Your task to perform on an android device: change notifications settings Image 0: 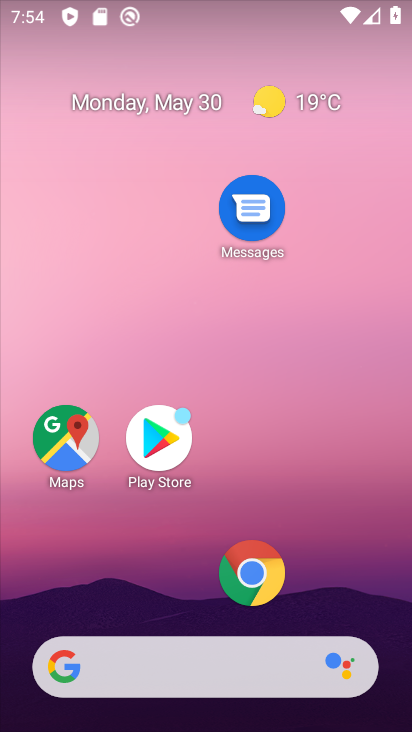
Step 0: drag from (145, 540) to (252, 32)
Your task to perform on an android device: change notifications settings Image 1: 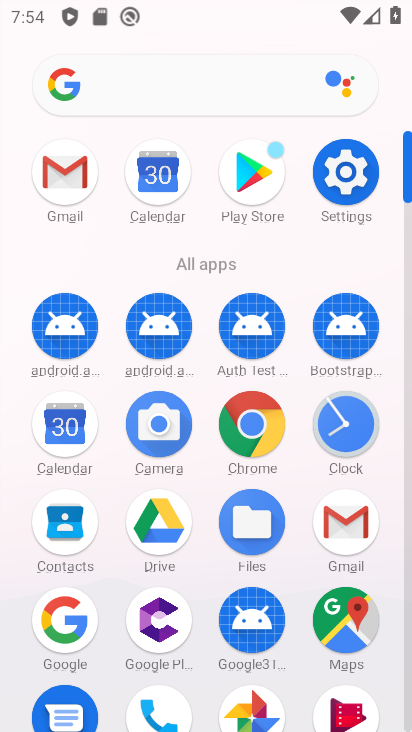
Step 1: click (341, 183)
Your task to perform on an android device: change notifications settings Image 2: 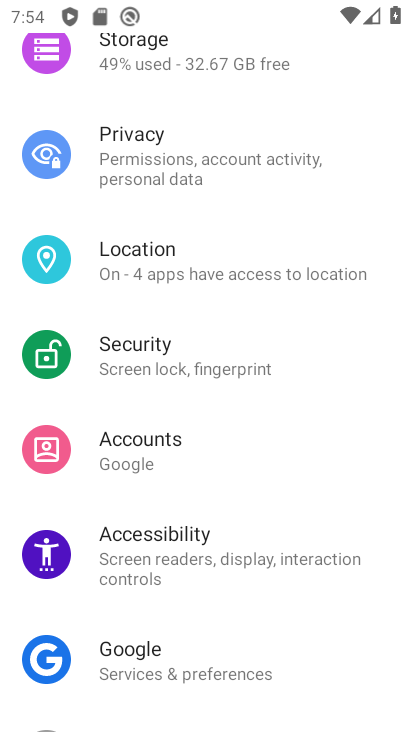
Step 2: drag from (187, 510) to (174, 651)
Your task to perform on an android device: change notifications settings Image 3: 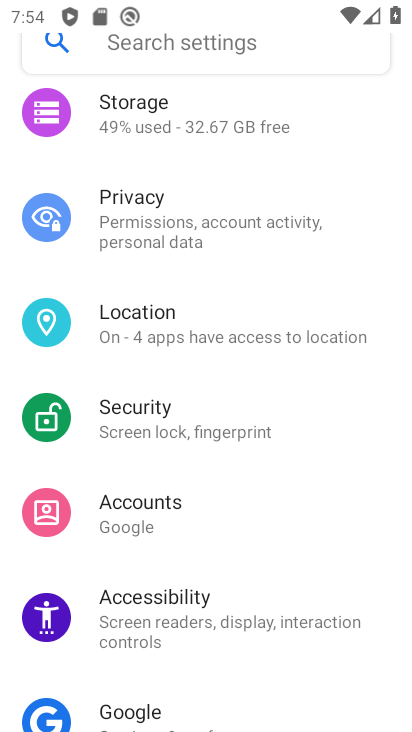
Step 3: drag from (217, 174) to (212, 425)
Your task to perform on an android device: change notifications settings Image 4: 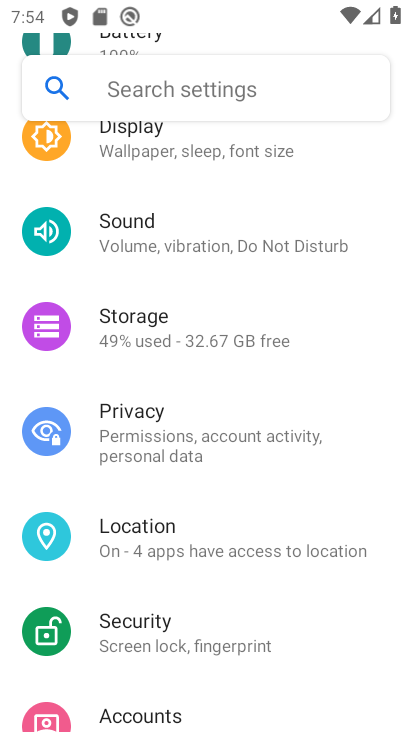
Step 4: drag from (230, 200) to (223, 398)
Your task to perform on an android device: change notifications settings Image 5: 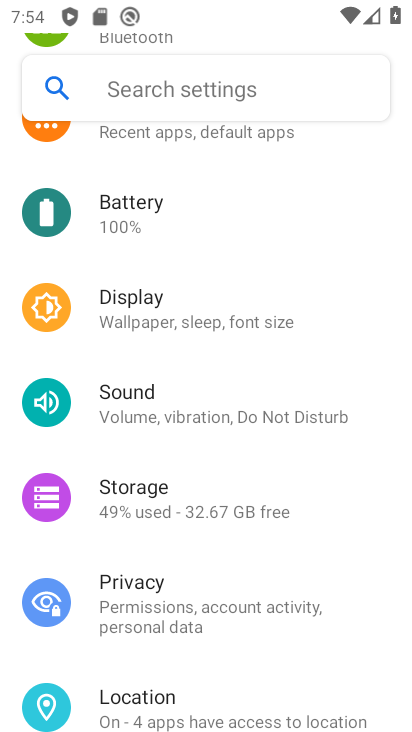
Step 5: drag from (241, 255) to (234, 360)
Your task to perform on an android device: change notifications settings Image 6: 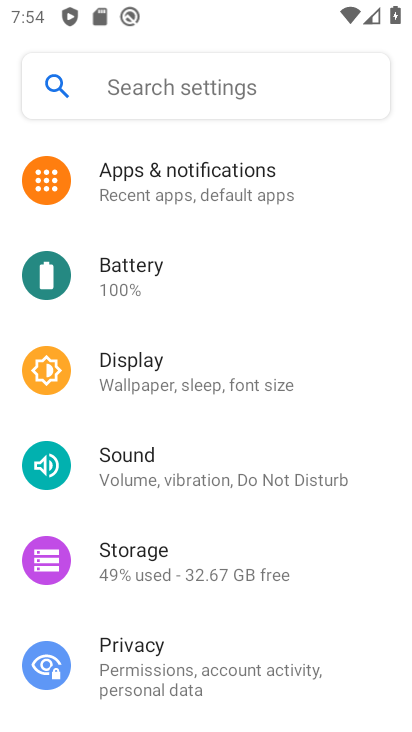
Step 6: click (222, 186)
Your task to perform on an android device: change notifications settings Image 7: 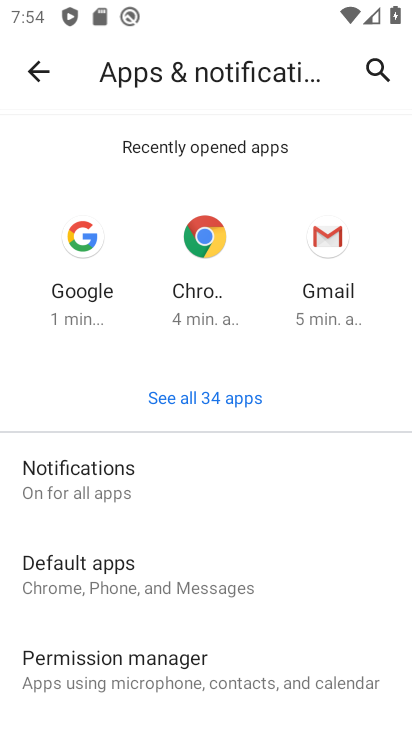
Step 7: click (116, 481)
Your task to perform on an android device: change notifications settings Image 8: 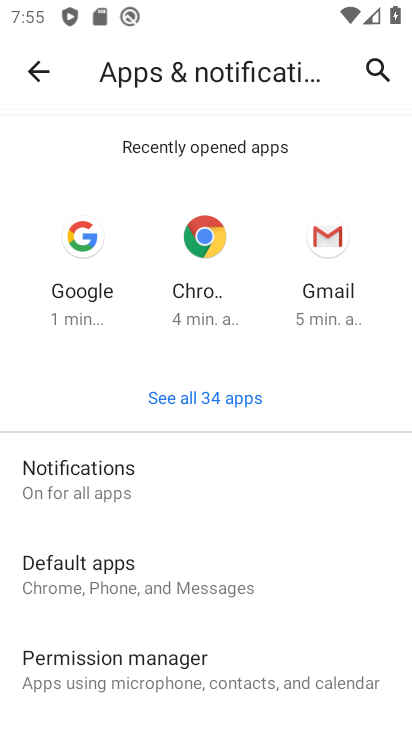
Step 8: click (121, 483)
Your task to perform on an android device: change notifications settings Image 9: 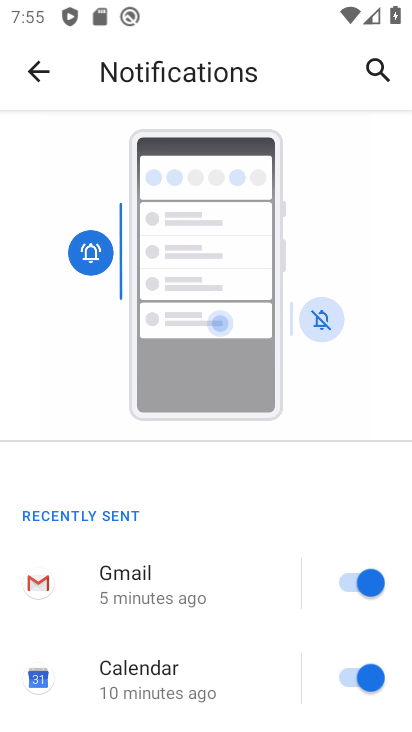
Step 9: drag from (172, 599) to (198, 470)
Your task to perform on an android device: change notifications settings Image 10: 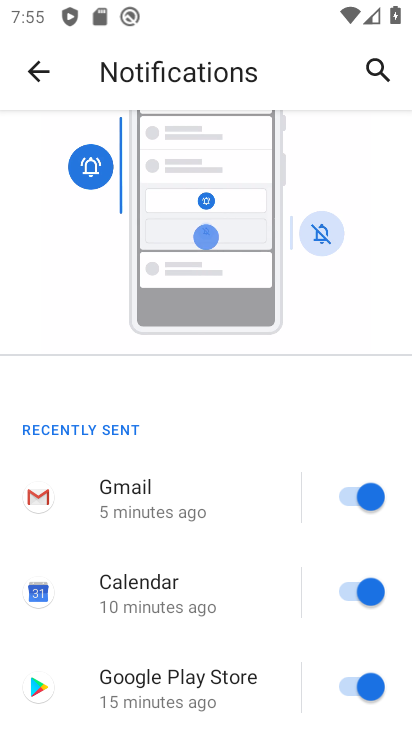
Step 10: drag from (167, 597) to (181, 405)
Your task to perform on an android device: change notifications settings Image 11: 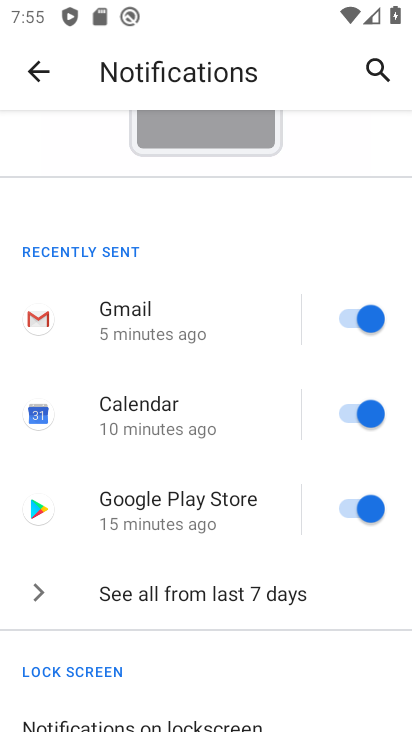
Step 11: click (175, 591)
Your task to perform on an android device: change notifications settings Image 12: 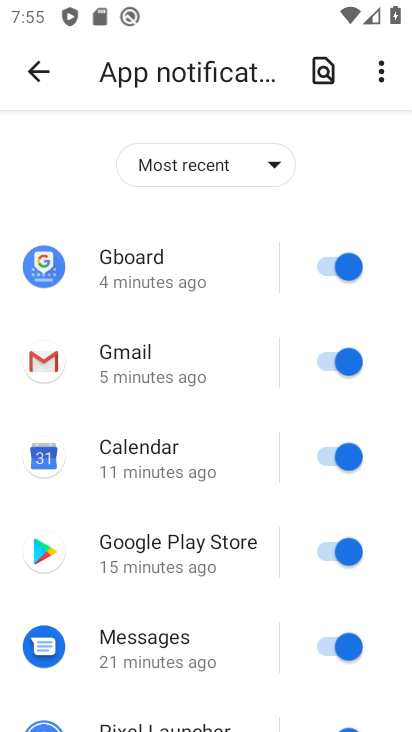
Step 12: click (345, 255)
Your task to perform on an android device: change notifications settings Image 13: 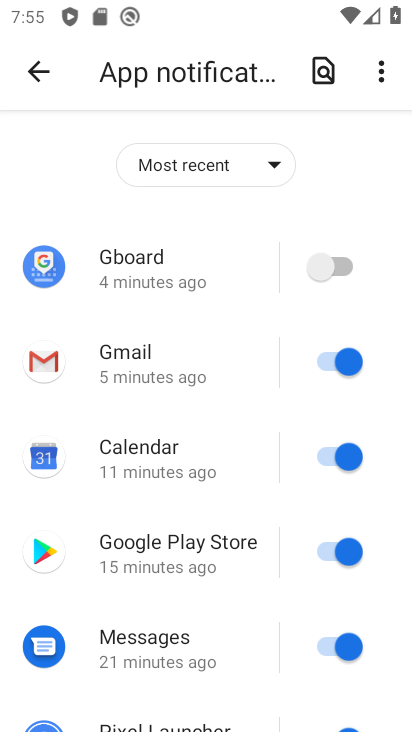
Step 13: click (324, 364)
Your task to perform on an android device: change notifications settings Image 14: 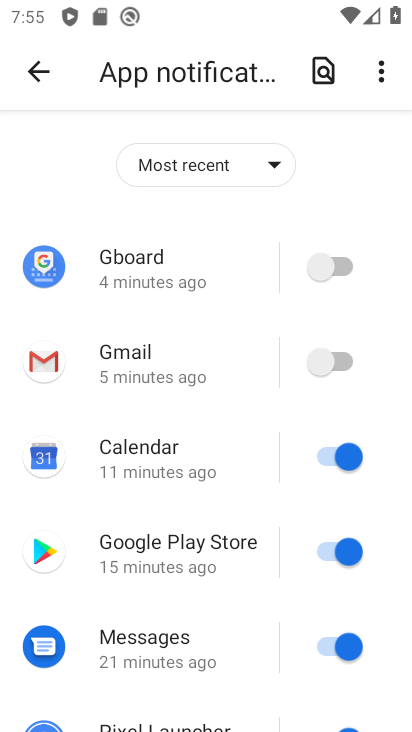
Step 14: click (323, 455)
Your task to perform on an android device: change notifications settings Image 15: 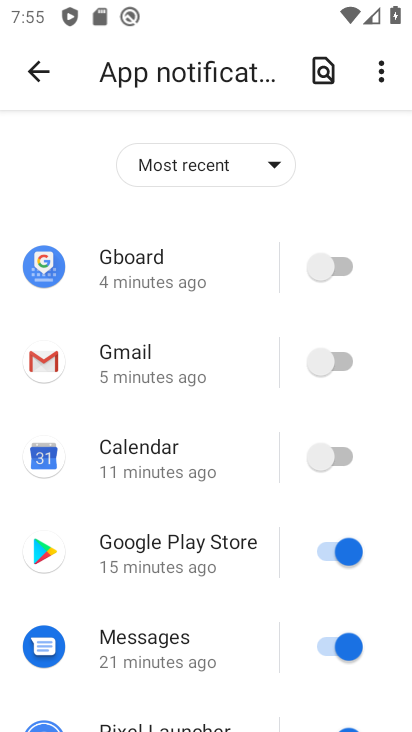
Step 15: click (323, 555)
Your task to perform on an android device: change notifications settings Image 16: 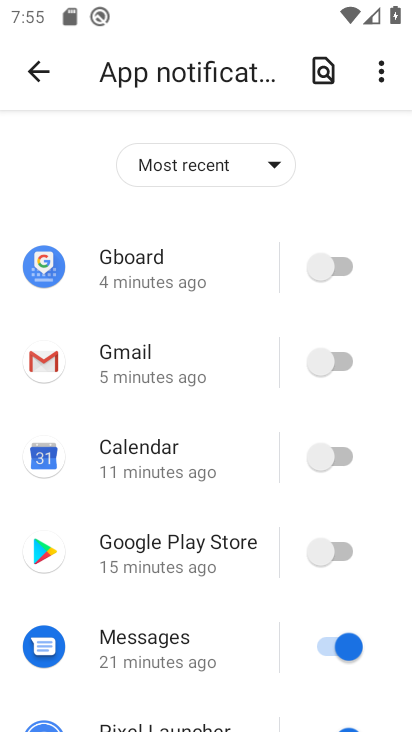
Step 16: drag from (267, 601) to (280, 456)
Your task to perform on an android device: change notifications settings Image 17: 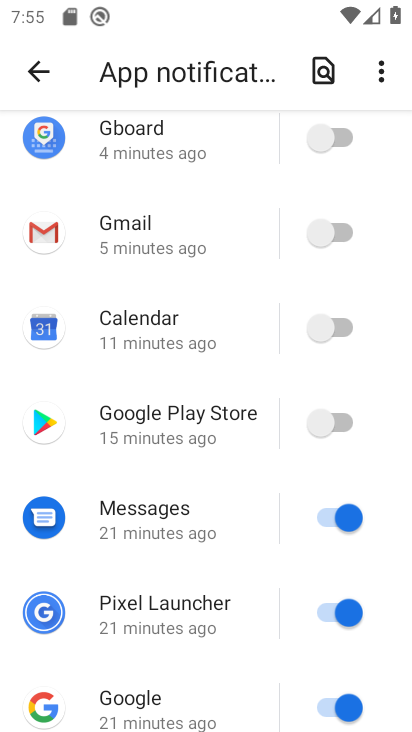
Step 17: click (317, 514)
Your task to perform on an android device: change notifications settings Image 18: 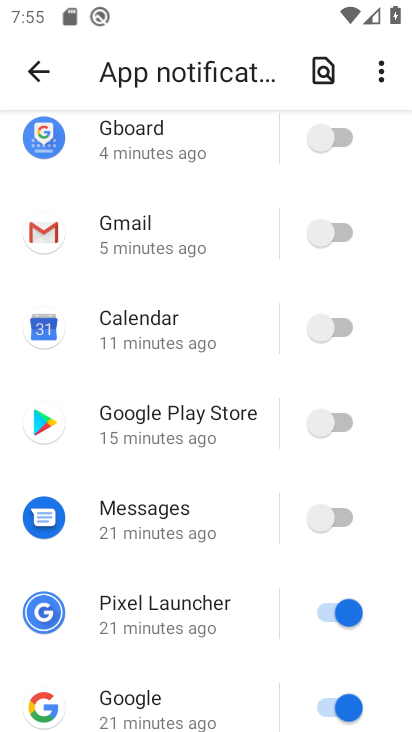
Step 18: click (330, 603)
Your task to perform on an android device: change notifications settings Image 19: 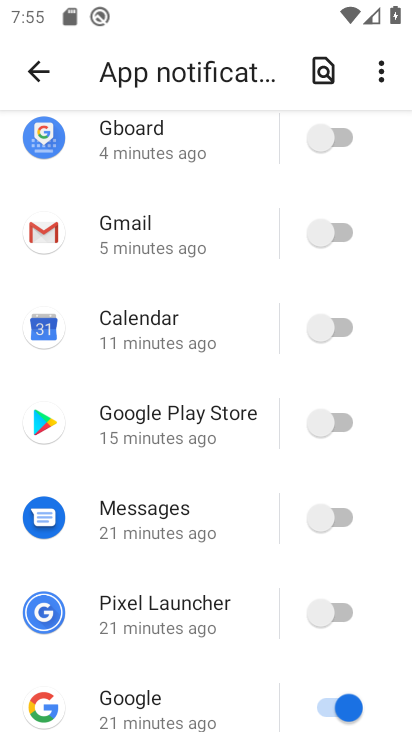
Step 19: click (308, 701)
Your task to perform on an android device: change notifications settings Image 20: 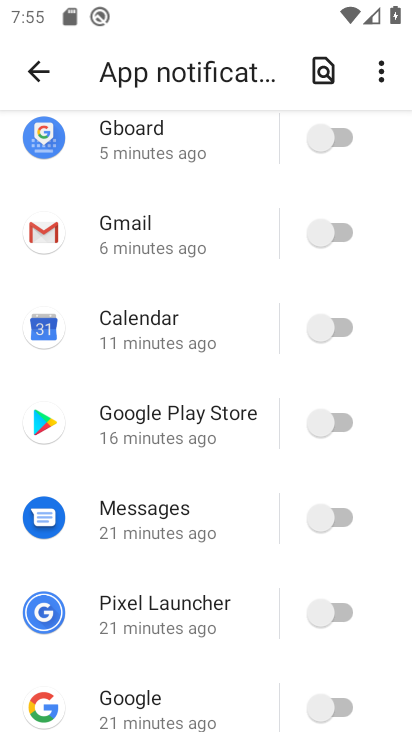
Step 20: task complete